Your task to perform on an android device: snooze an email in the gmail app Image 0: 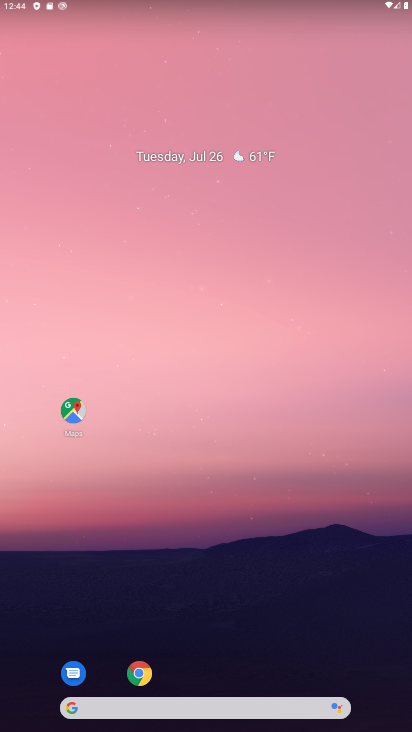
Step 0: drag from (196, 575) to (282, 110)
Your task to perform on an android device: snooze an email in the gmail app Image 1: 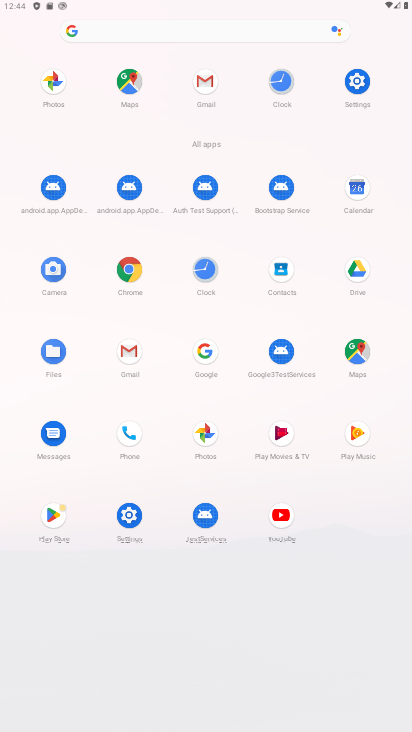
Step 1: click (122, 344)
Your task to perform on an android device: snooze an email in the gmail app Image 2: 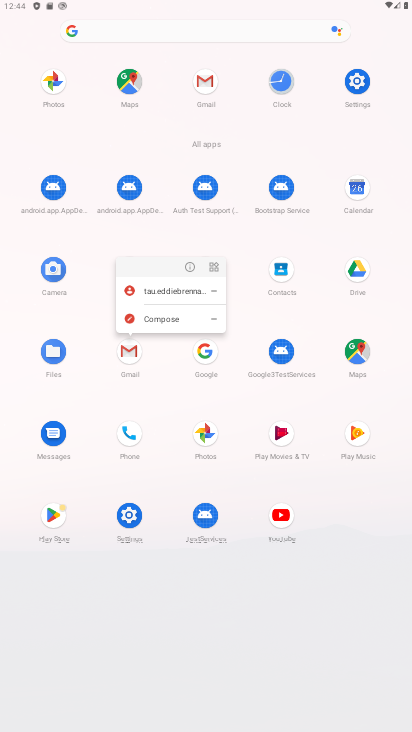
Step 2: click (187, 264)
Your task to perform on an android device: snooze an email in the gmail app Image 3: 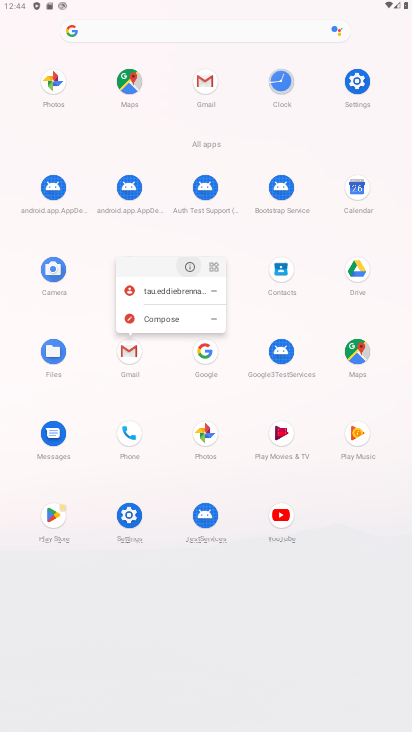
Step 3: click (187, 264)
Your task to perform on an android device: snooze an email in the gmail app Image 4: 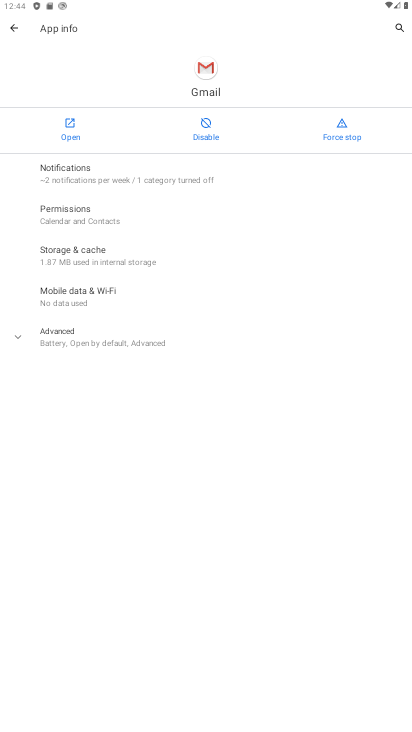
Step 4: click (67, 120)
Your task to perform on an android device: snooze an email in the gmail app Image 5: 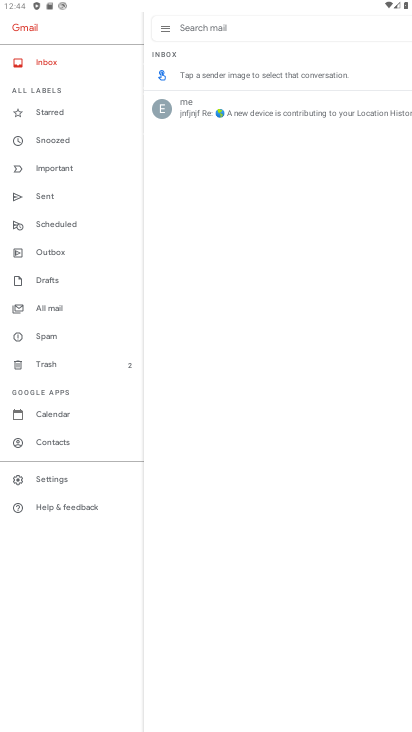
Step 5: click (240, 108)
Your task to perform on an android device: snooze an email in the gmail app Image 6: 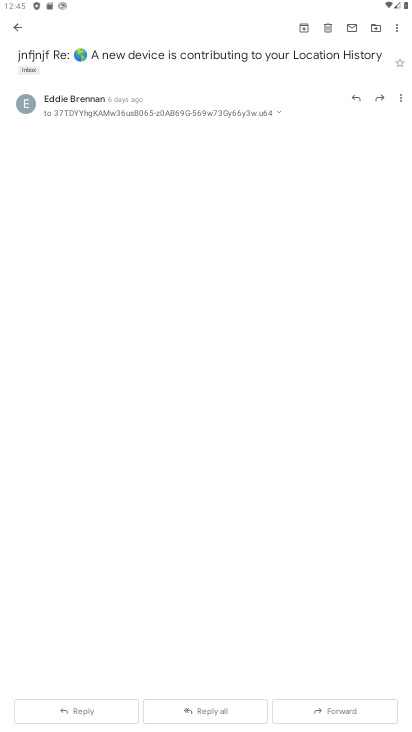
Step 6: drag from (398, 26) to (347, 37)
Your task to perform on an android device: snooze an email in the gmail app Image 7: 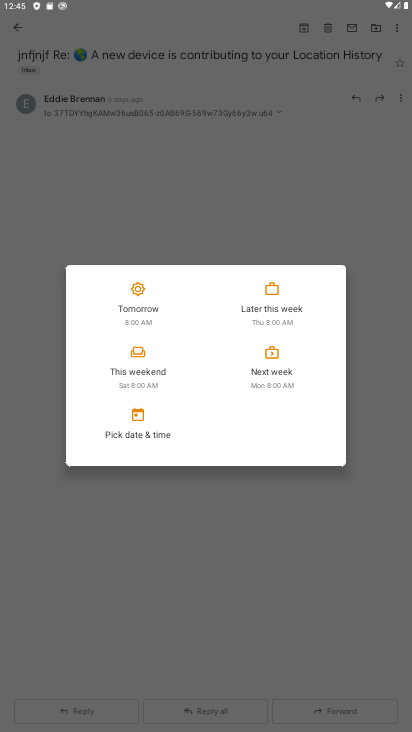
Step 7: click (136, 303)
Your task to perform on an android device: snooze an email in the gmail app Image 8: 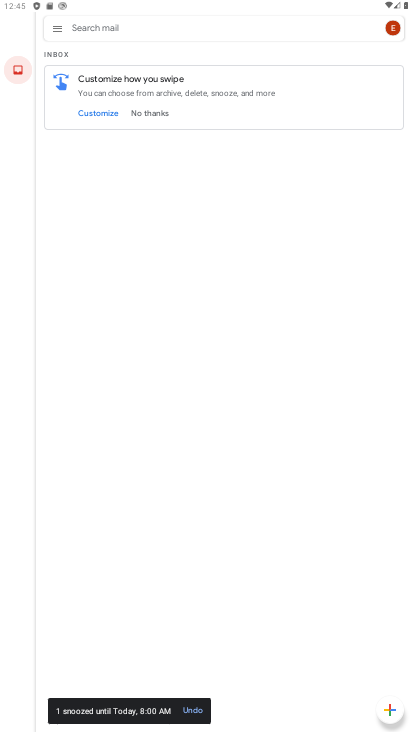
Step 8: task complete